Your task to perform on an android device: Go to settings Image 0: 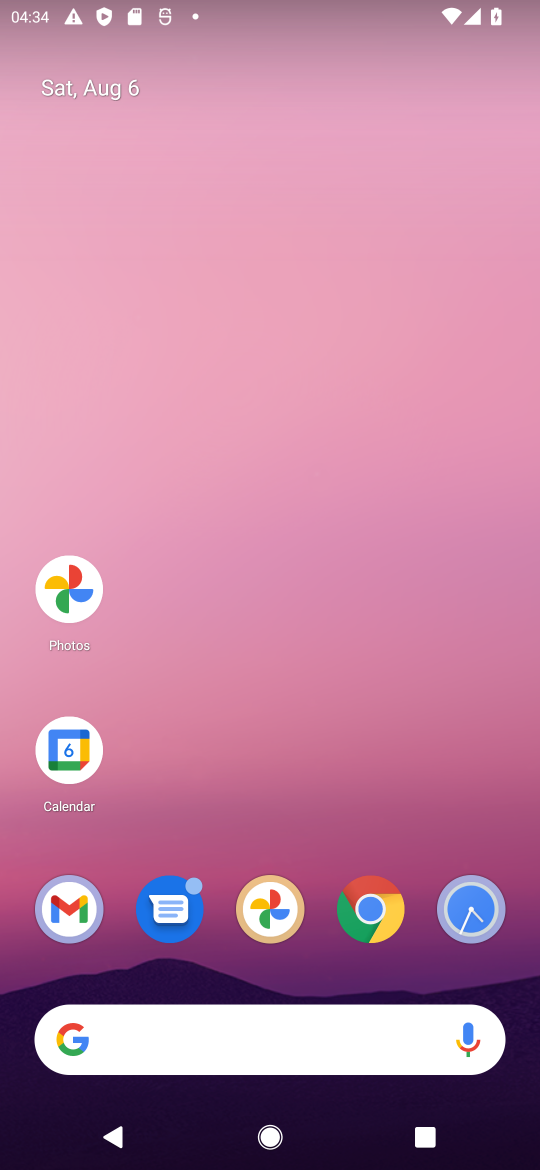
Step 0: drag from (260, 806) to (204, 238)
Your task to perform on an android device: Go to settings Image 1: 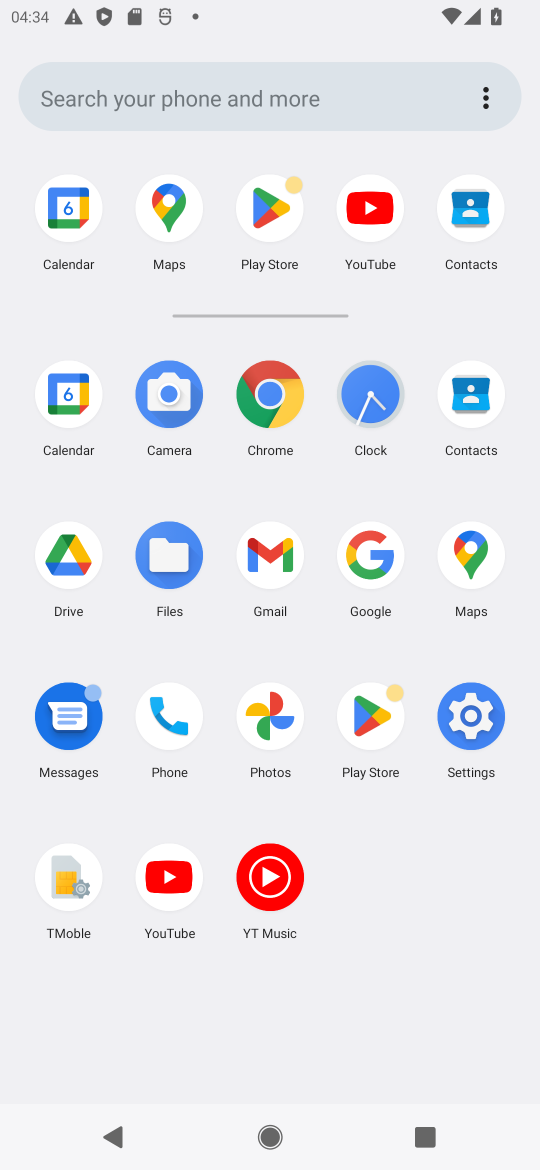
Step 1: click (475, 712)
Your task to perform on an android device: Go to settings Image 2: 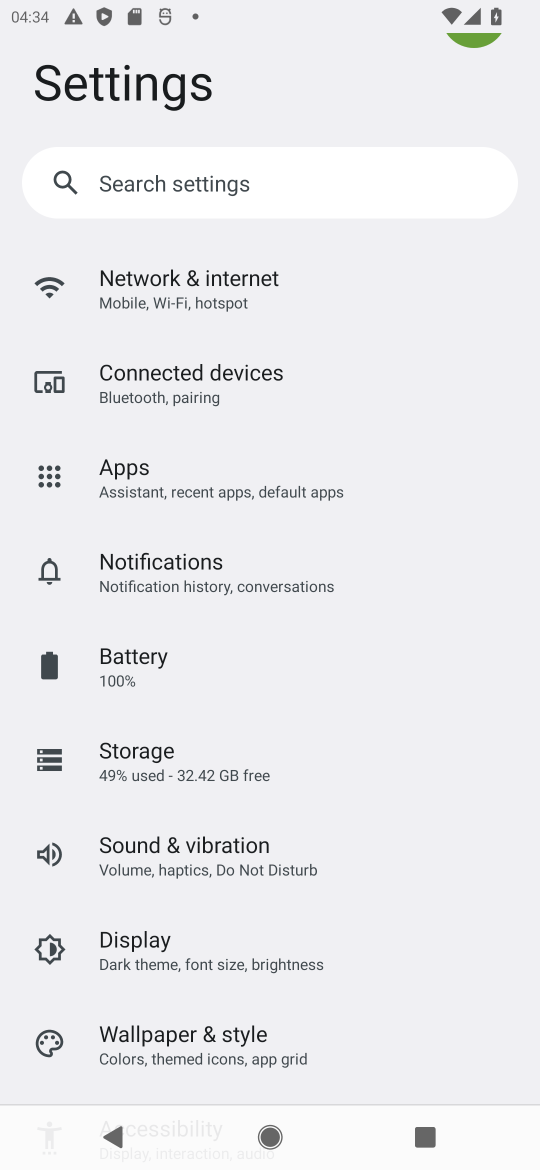
Step 2: task complete